Your task to perform on an android device: Go to Reddit.com Image 0: 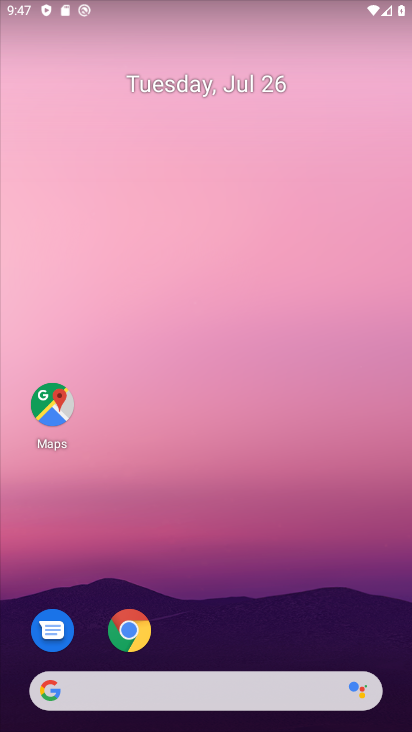
Step 0: click (130, 632)
Your task to perform on an android device: Go to Reddit.com Image 1: 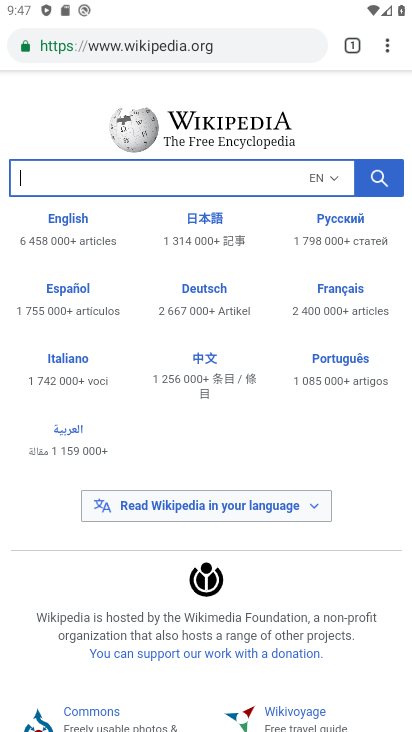
Step 1: click (232, 43)
Your task to perform on an android device: Go to Reddit.com Image 2: 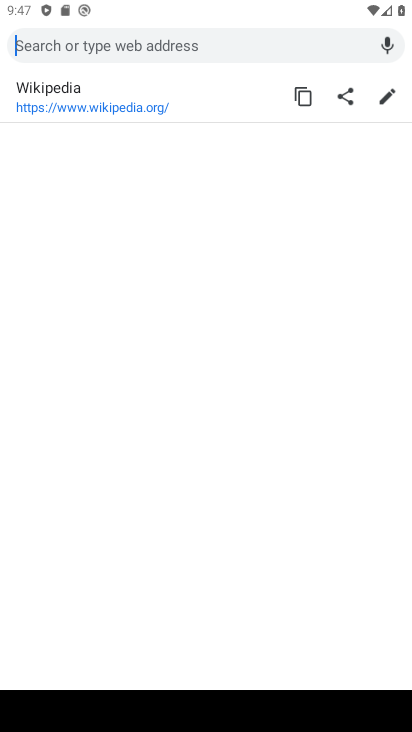
Step 2: type "reddit.com"
Your task to perform on an android device: Go to Reddit.com Image 3: 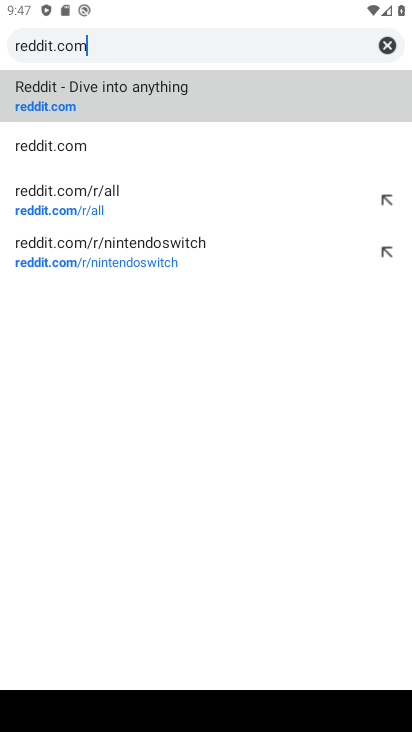
Step 3: click (74, 88)
Your task to perform on an android device: Go to Reddit.com Image 4: 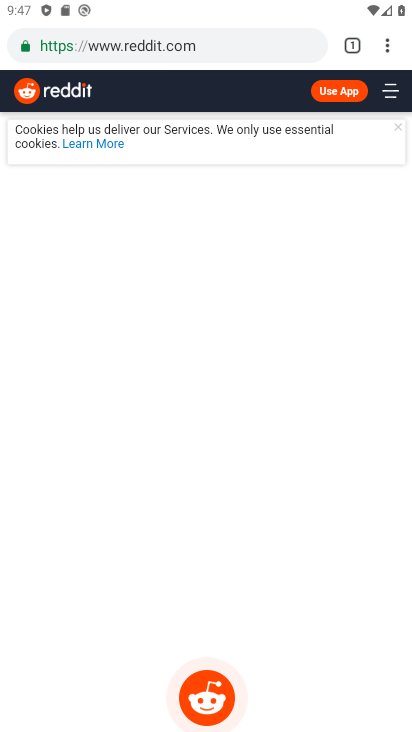
Step 4: task complete